Your task to perform on an android device: Open Google Chrome and click the shortcut for Amazon.com Image 0: 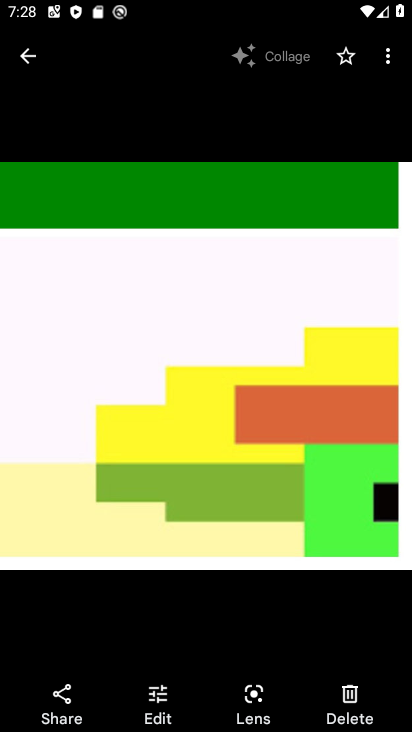
Step 0: press home button
Your task to perform on an android device: Open Google Chrome and click the shortcut for Amazon.com Image 1: 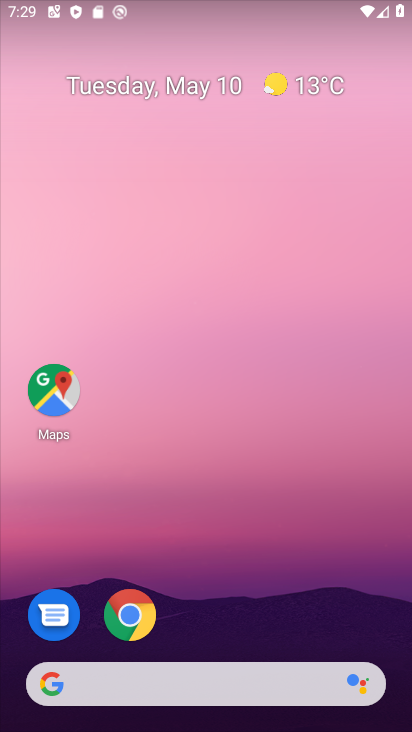
Step 1: drag from (299, 569) to (349, 53)
Your task to perform on an android device: Open Google Chrome and click the shortcut for Amazon.com Image 2: 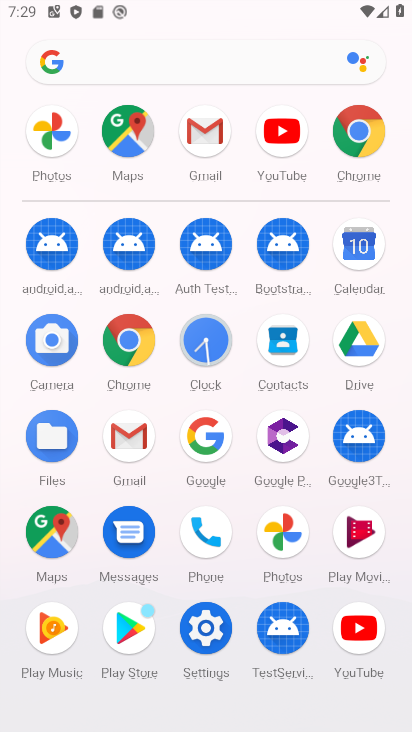
Step 2: click (379, 137)
Your task to perform on an android device: Open Google Chrome and click the shortcut for Amazon.com Image 3: 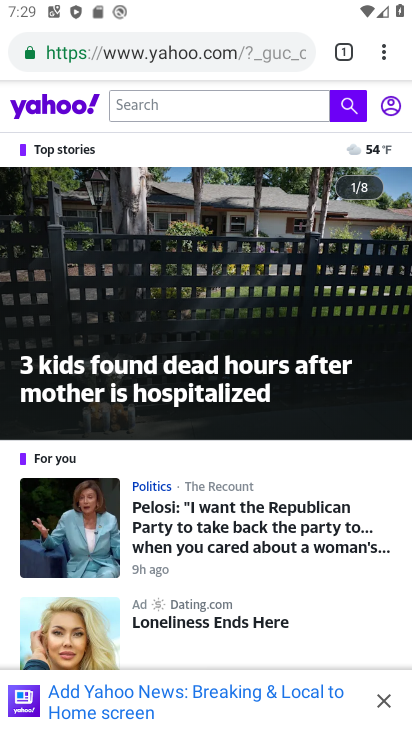
Step 3: click (221, 49)
Your task to perform on an android device: Open Google Chrome and click the shortcut for Amazon.com Image 4: 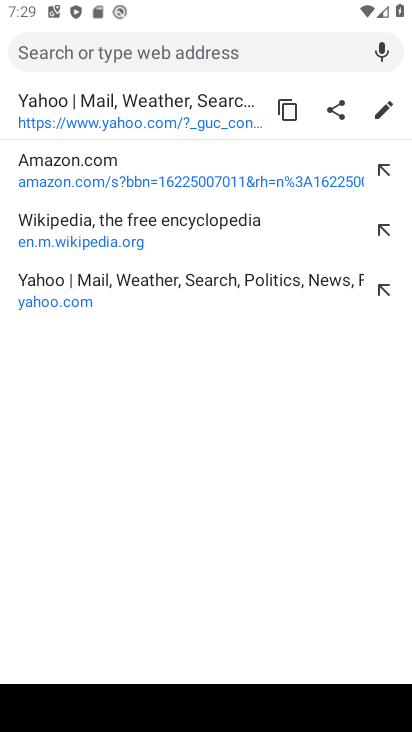
Step 4: click (105, 160)
Your task to perform on an android device: Open Google Chrome and click the shortcut for Amazon.com Image 5: 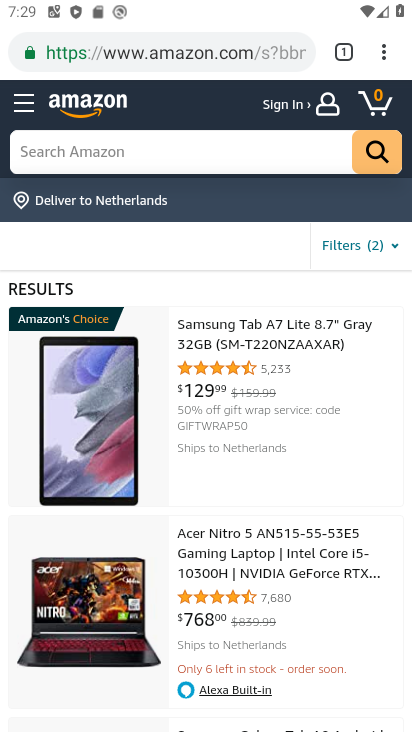
Step 5: drag from (389, 51) to (242, 540)
Your task to perform on an android device: Open Google Chrome and click the shortcut for Amazon.com Image 6: 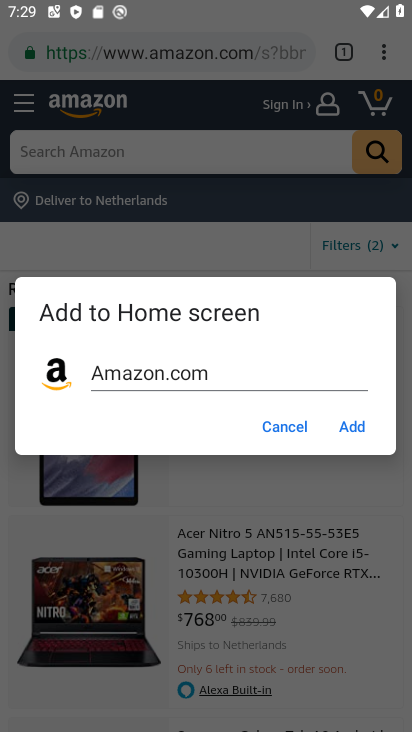
Step 6: click (347, 430)
Your task to perform on an android device: Open Google Chrome and click the shortcut for Amazon.com Image 7: 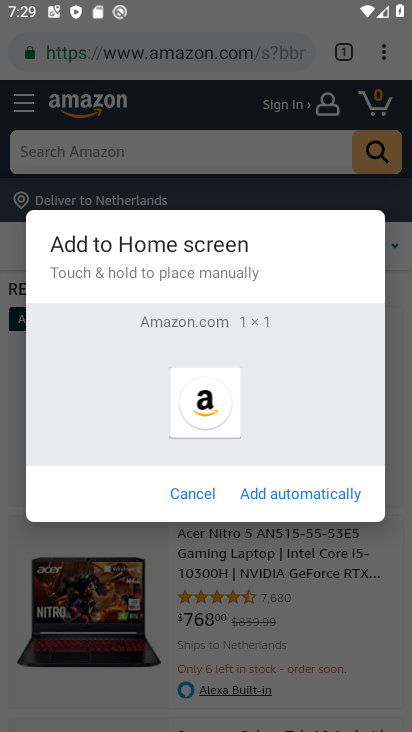
Step 7: click (293, 494)
Your task to perform on an android device: Open Google Chrome and click the shortcut for Amazon.com Image 8: 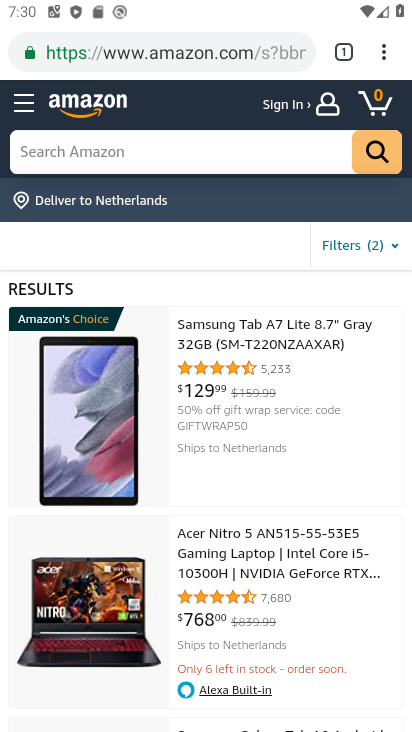
Step 8: task complete